Your task to perform on an android device: set default search engine in the chrome app Image 0: 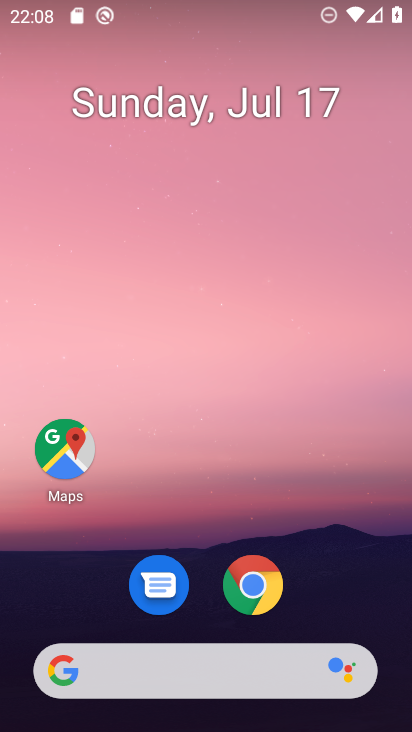
Step 0: click (257, 594)
Your task to perform on an android device: set default search engine in the chrome app Image 1: 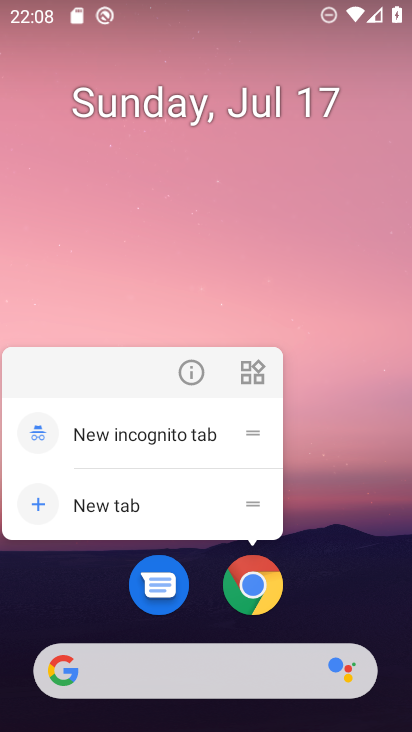
Step 1: click (256, 581)
Your task to perform on an android device: set default search engine in the chrome app Image 2: 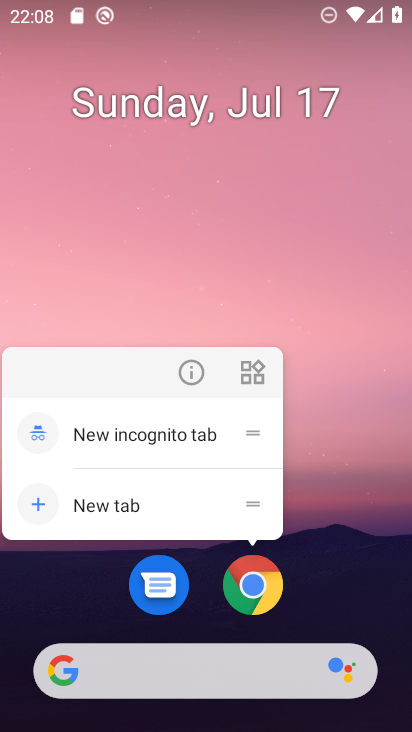
Step 2: click (256, 581)
Your task to perform on an android device: set default search engine in the chrome app Image 3: 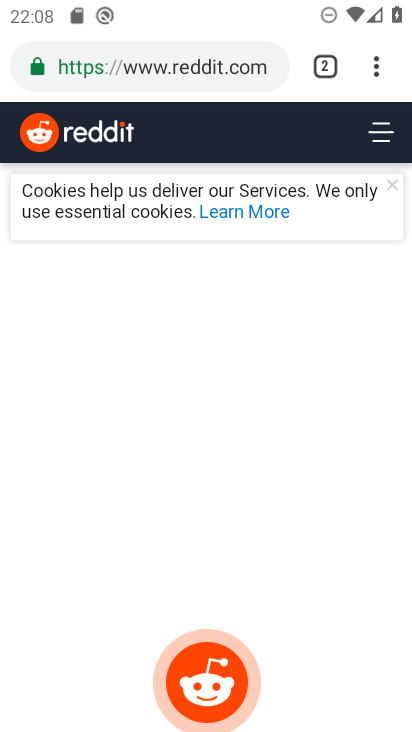
Step 3: drag from (372, 66) to (221, 591)
Your task to perform on an android device: set default search engine in the chrome app Image 4: 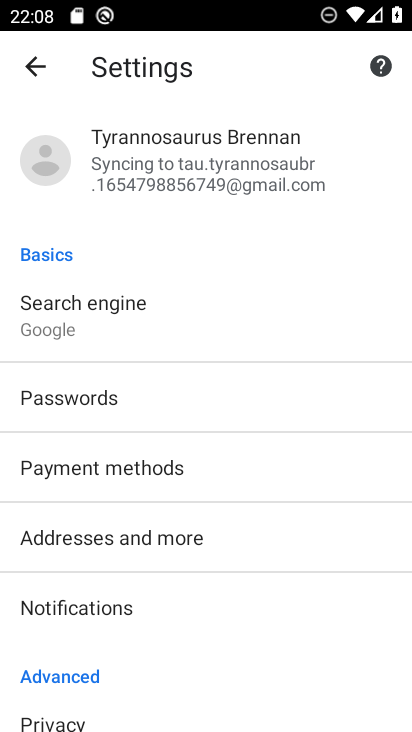
Step 4: click (81, 318)
Your task to perform on an android device: set default search engine in the chrome app Image 5: 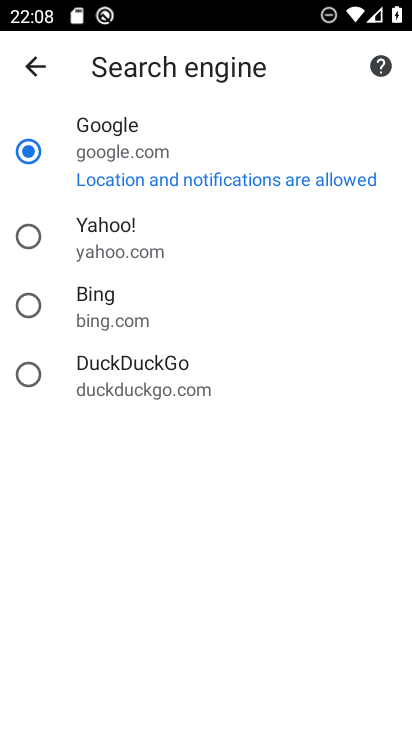
Step 5: click (28, 233)
Your task to perform on an android device: set default search engine in the chrome app Image 6: 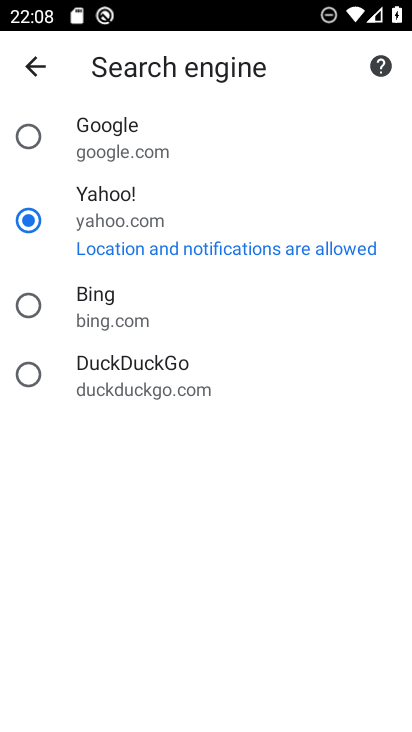
Step 6: task complete